Your task to perform on an android device: turn off smart reply in the gmail app Image 0: 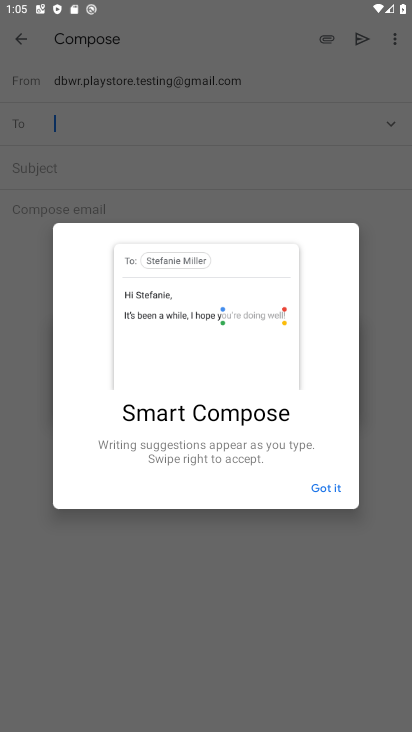
Step 0: press home button
Your task to perform on an android device: turn off smart reply in the gmail app Image 1: 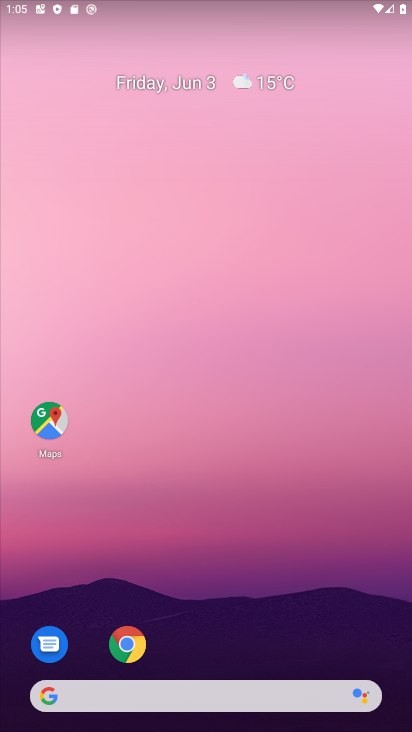
Step 1: drag from (235, 605) to (290, 38)
Your task to perform on an android device: turn off smart reply in the gmail app Image 2: 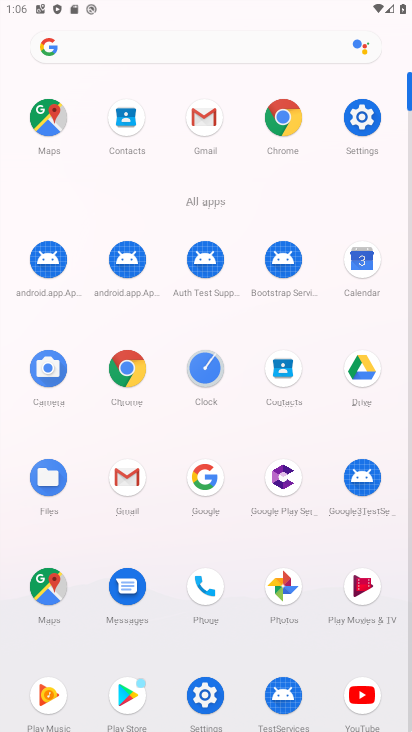
Step 2: click (126, 488)
Your task to perform on an android device: turn off smart reply in the gmail app Image 3: 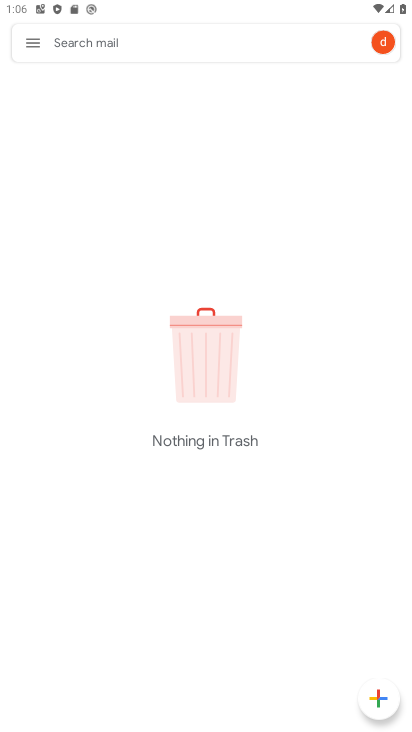
Step 3: click (30, 44)
Your task to perform on an android device: turn off smart reply in the gmail app Image 4: 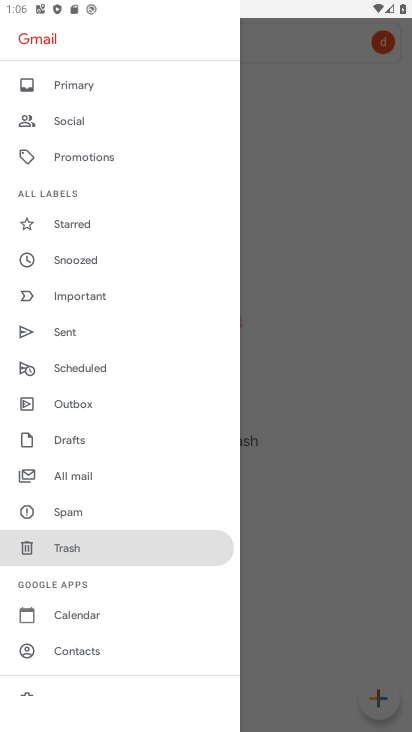
Step 4: drag from (96, 640) to (154, 304)
Your task to perform on an android device: turn off smart reply in the gmail app Image 5: 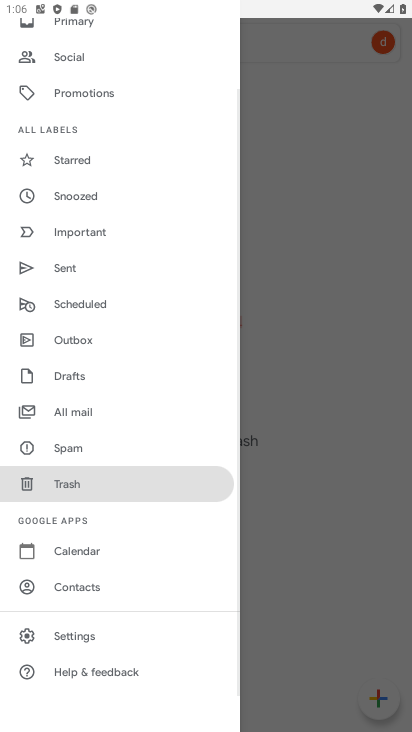
Step 5: click (91, 639)
Your task to perform on an android device: turn off smart reply in the gmail app Image 6: 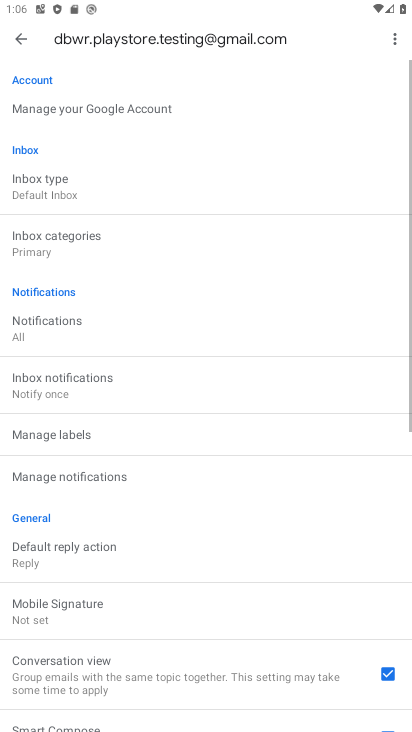
Step 6: drag from (178, 599) to (202, 245)
Your task to perform on an android device: turn off smart reply in the gmail app Image 7: 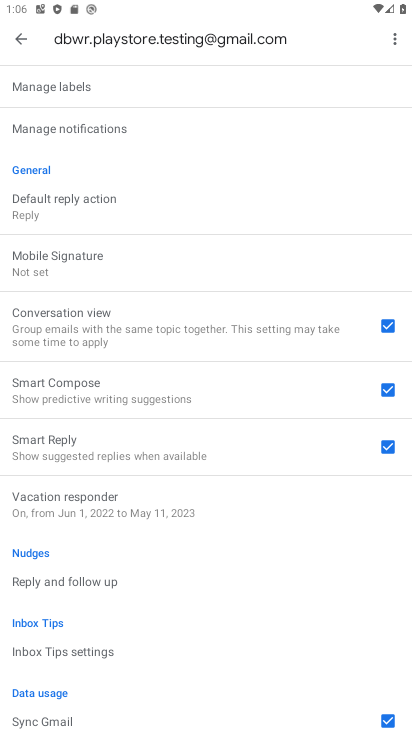
Step 7: click (385, 548)
Your task to perform on an android device: turn off smart reply in the gmail app Image 8: 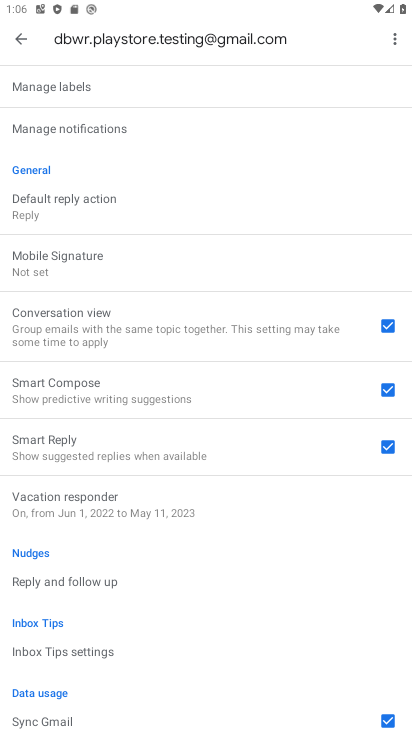
Step 8: click (377, 442)
Your task to perform on an android device: turn off smart reply in the gmail app Image 9: 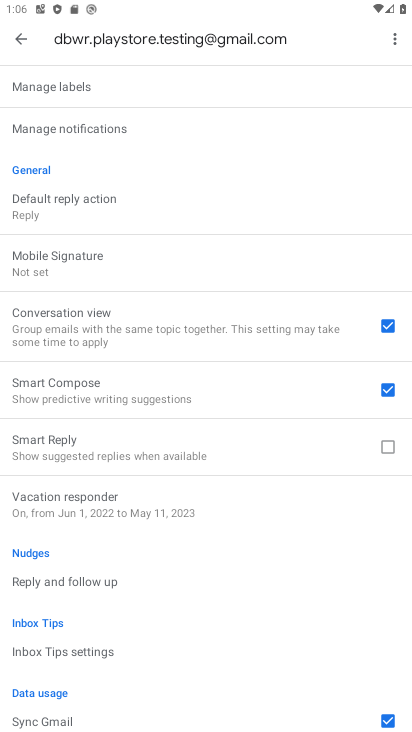
Step 9: task complete